Your task to perform on an android device: Search for hotels in San Francisco Image 0: 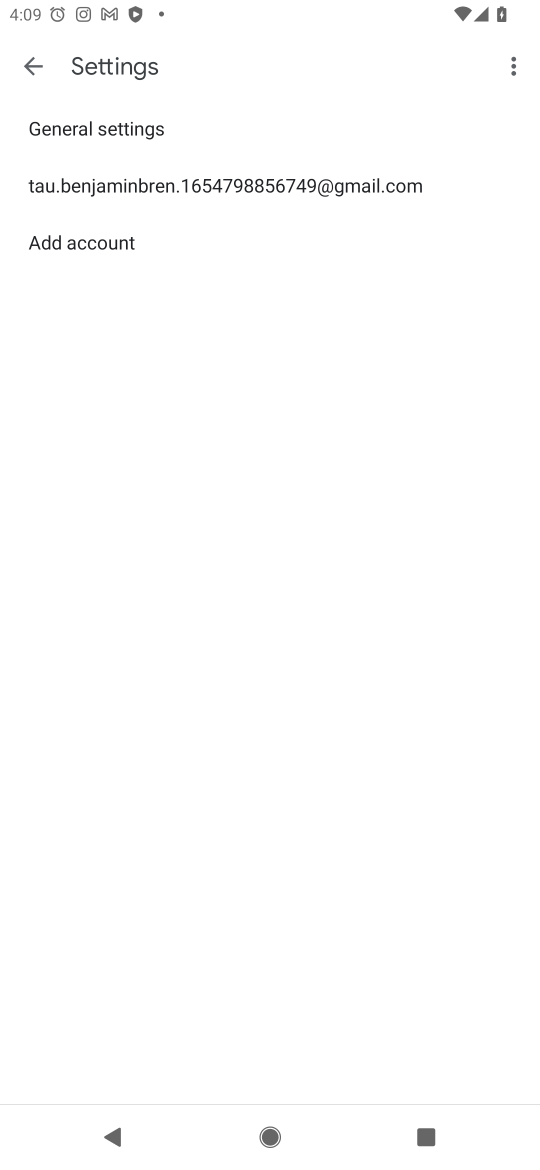
Step 0: press home button
Your task to perform on an android device: Search for hotels in San Francisco Image 1: 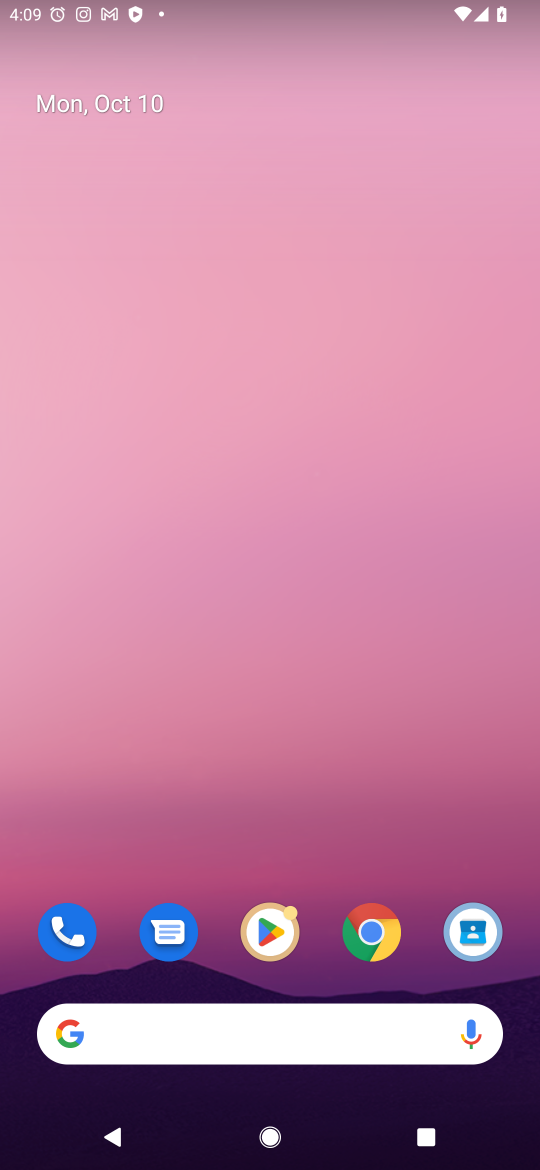
Step 1: click (312, 1031)
Your task to perform on an android device: Search for hotels in San Francisco Image 2: 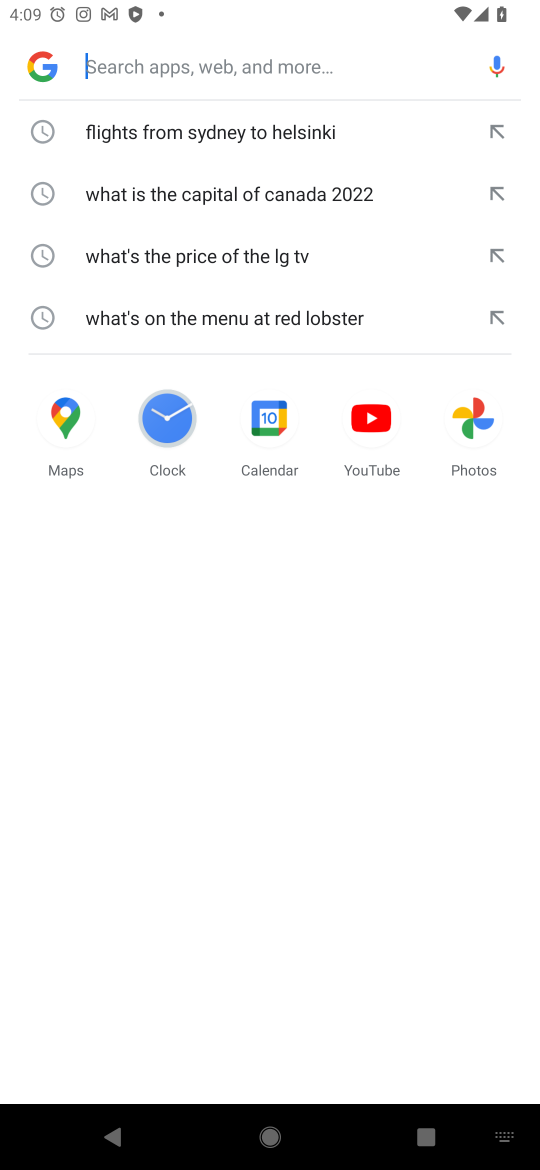
Step 2: type " hotels in San Francisco"
Your task to perform on an android device: Search for hotels in San Francisco Image 3: 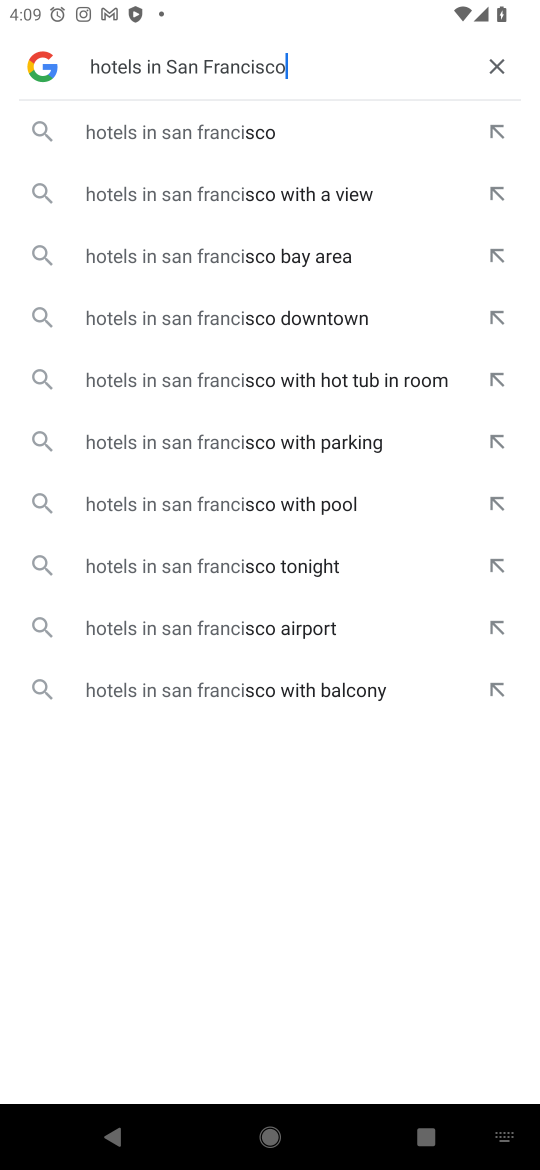
Step 3: press enter
Your task to perform on an android device: Search for hotels in San Francisco Image 4: 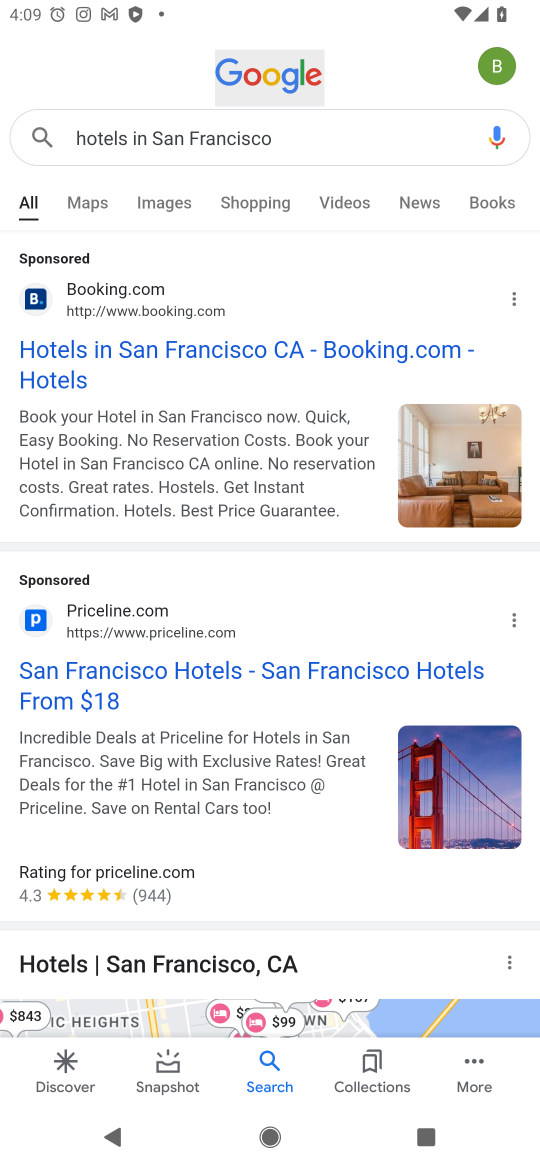
Step 4: task complete